Your task to perform on an android device: Open settings Image 0: 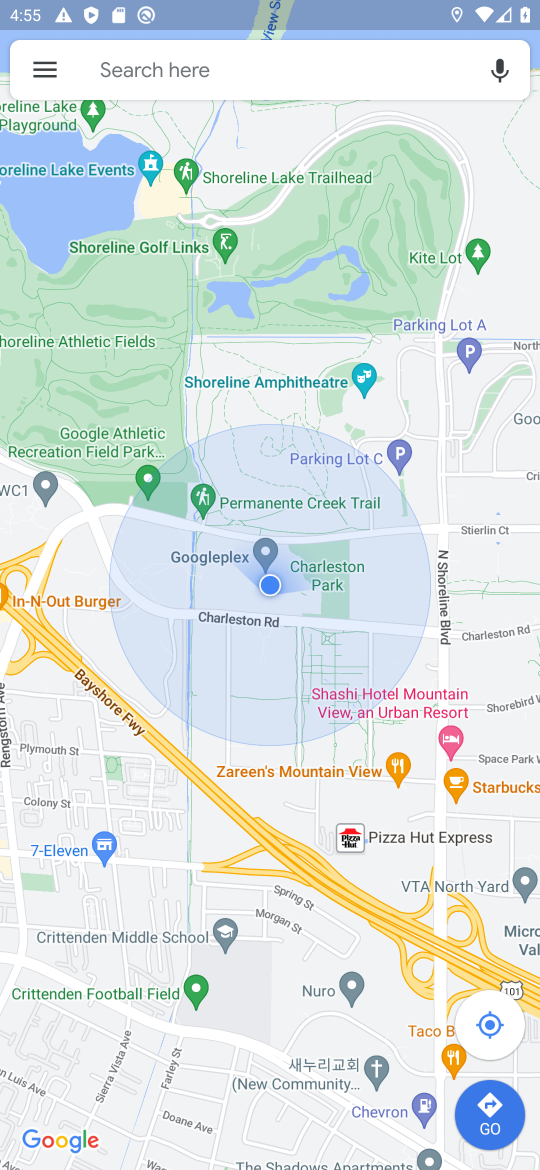
Step 0: press home button
Your task to perform on an android device: Open settings Image 1: 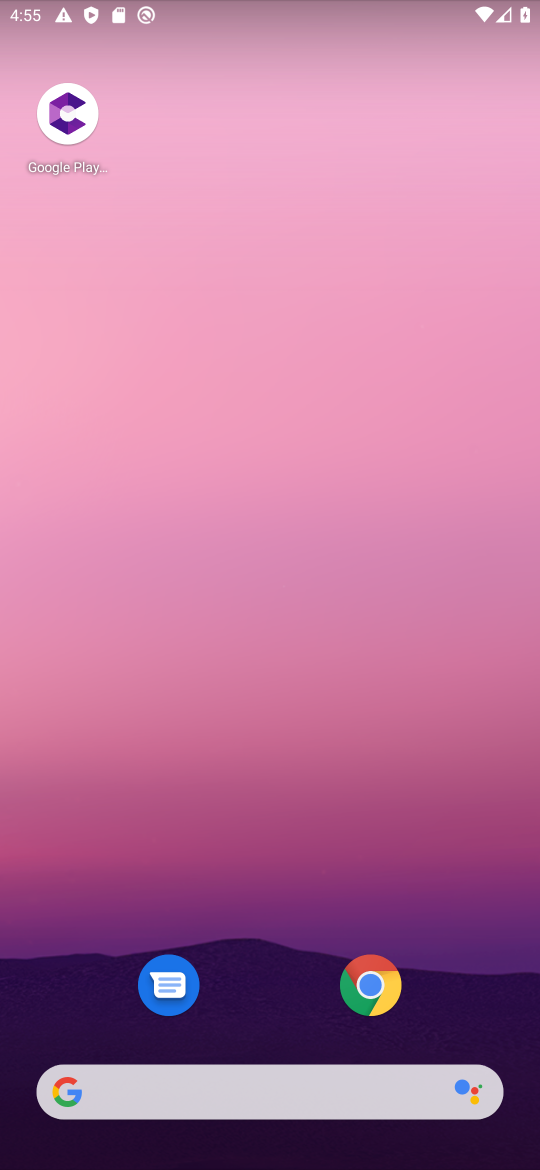
Step 1: drag from (238, 1001) to (290, 333)
Your task to perform on an android device: Open settings Image 2: 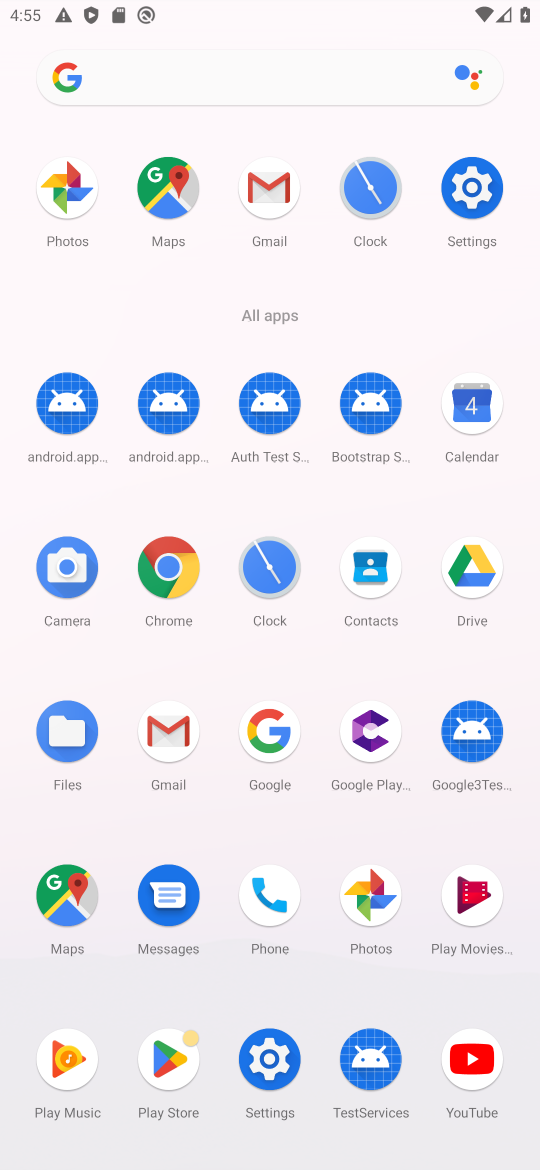
Step 2: click (457, 200)
Your task to perform on an android device: Open settings Image 3: 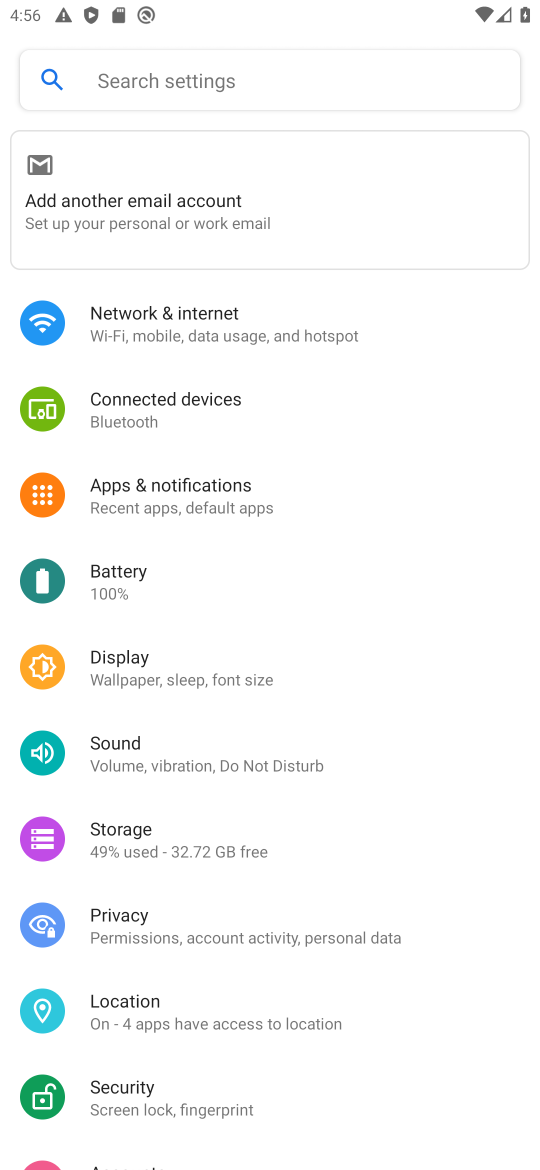
Step 3: task complete